Your task to perform on an android device: see tabs open on other devices in the chrome app Image 0: 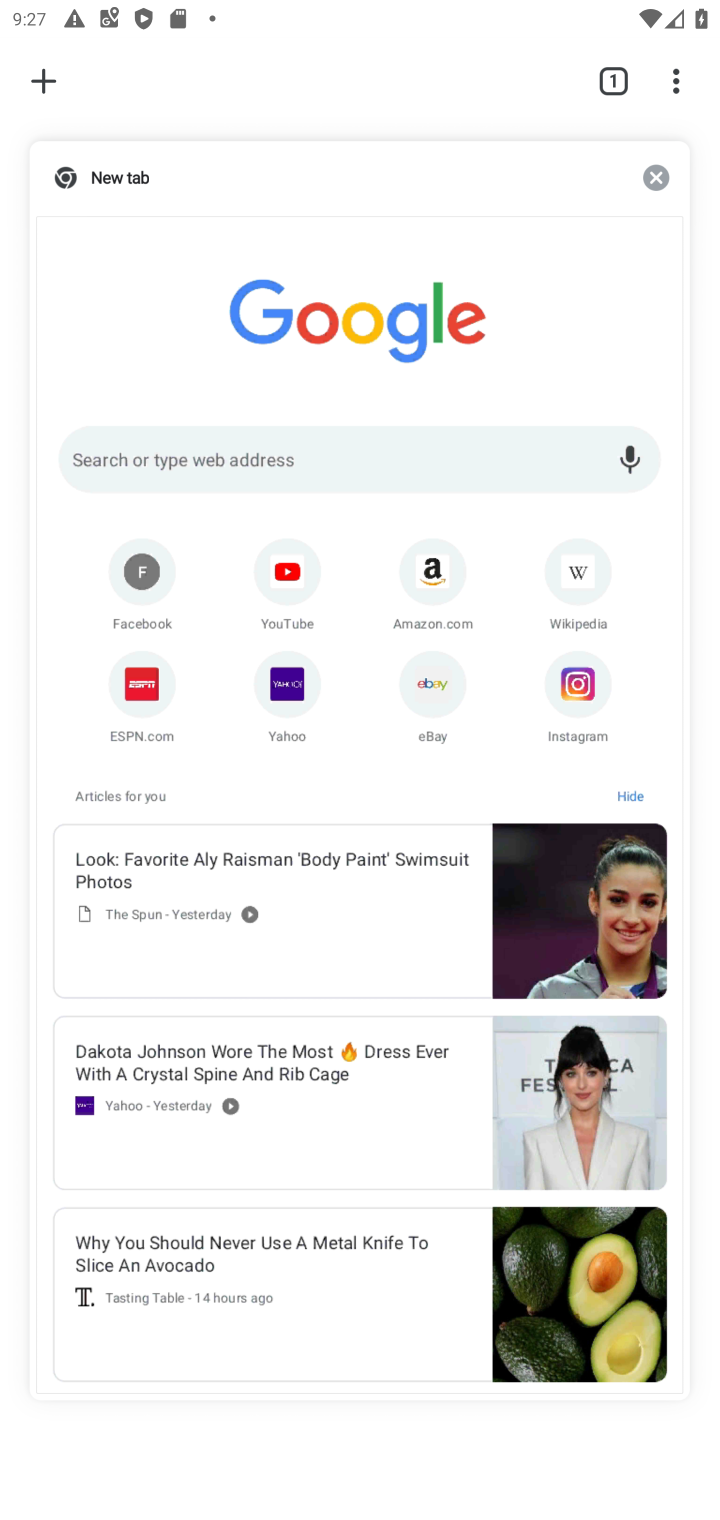
Step 0: task complete